Your task to perform on an android device: What is the recent news? Image 0: 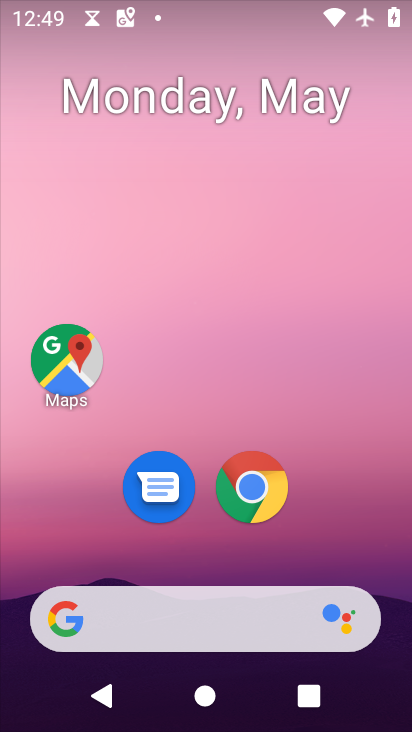
Step 0: click (189, 615)
Your task to perform on an android device: What is the recent news? Image 1: 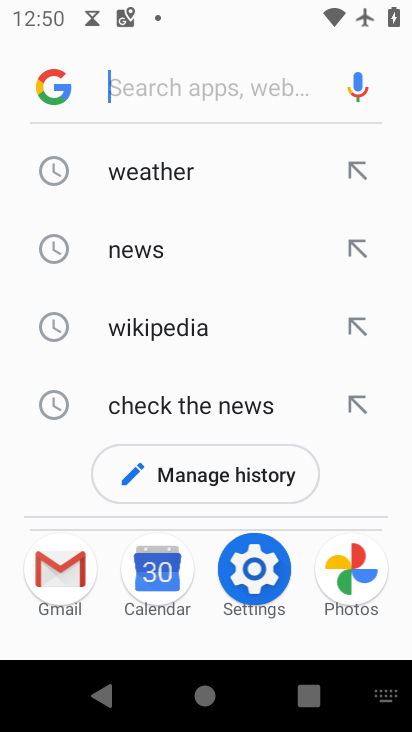
Step 1: type "what is the recent news"
Your task to perform on an android device: What is the recent news? Image 2: 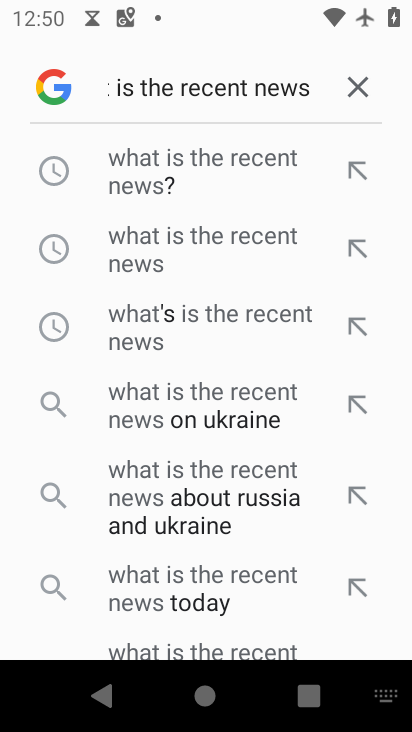
Step 2: click (172, 181)
Your task to perform on an android device: What is the recent news? Image 3: 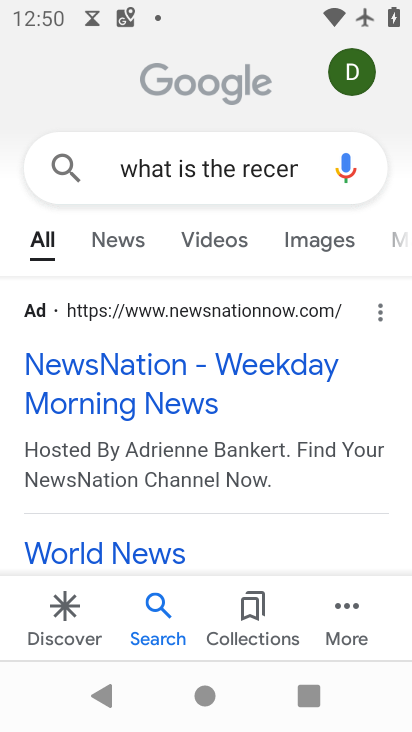
Step 3: click (145, 238)
Your task to perform on an android device: What is the recent news? Image 4: 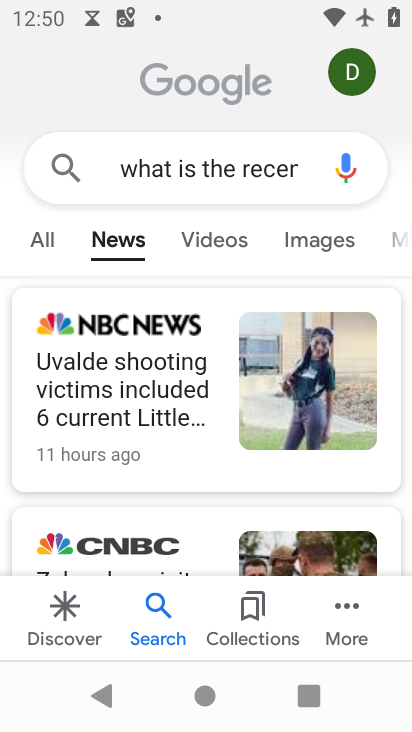
Step 4: task complete